Your task to perform on an android device: check google app version Image 0: 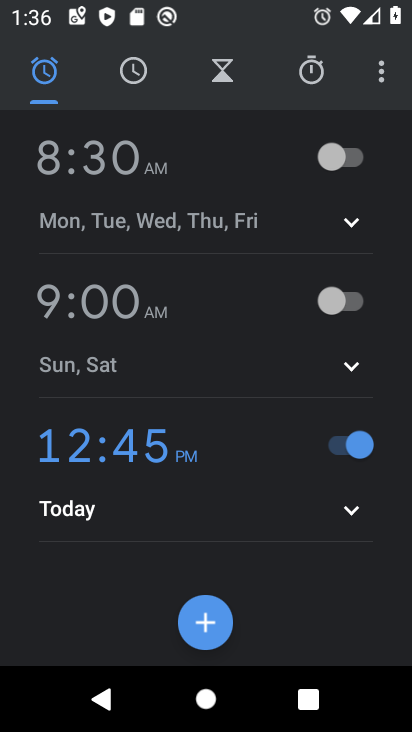
Step 0: press home button
Your task to perform on an android device: check google app version Image 1: 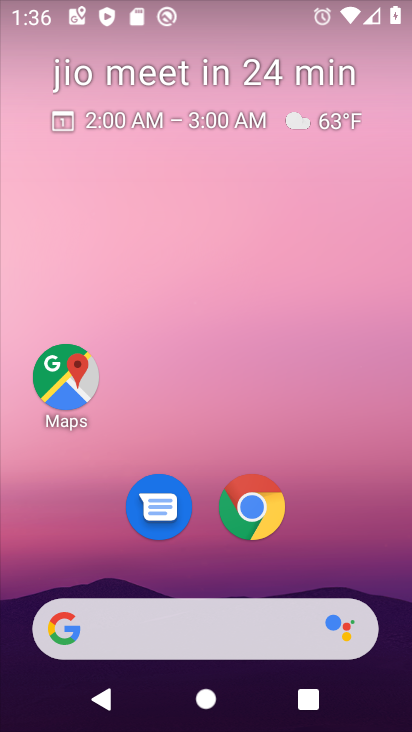
Step 1: click (228, 630)
Your task to perform on an android device: check google app version Image 2: 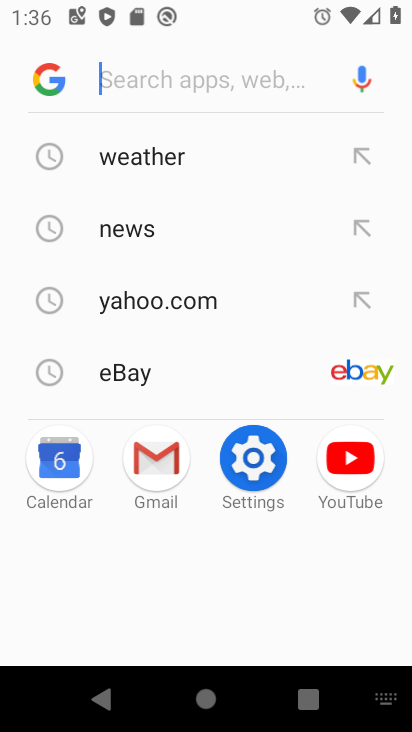
Step 2: click (50, 80)
Your task to perform on an android device: check google app version Image 3: 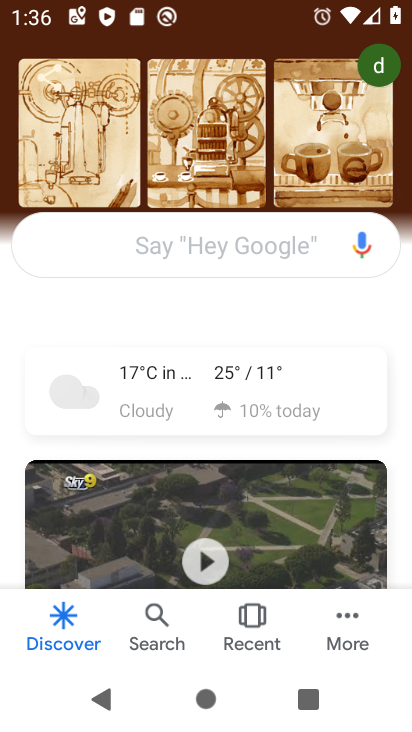
Step 3: click (351, 612)
Your task to perform on an android device: check google app version Image 4: 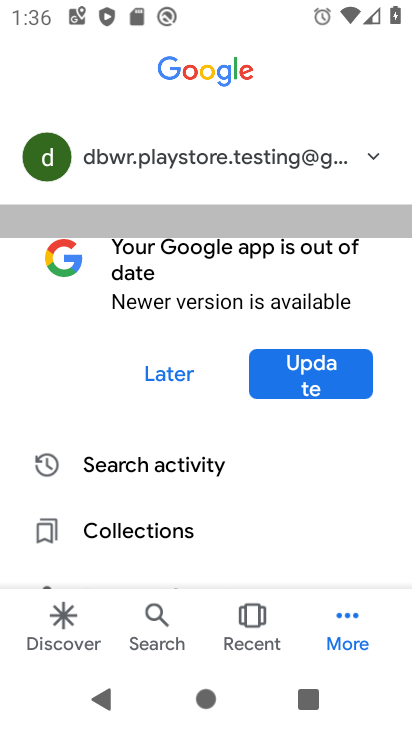
Step 4: drag from (190, 474) to (211, 108)
Your task to perform on an android device: check google app version Image 5: 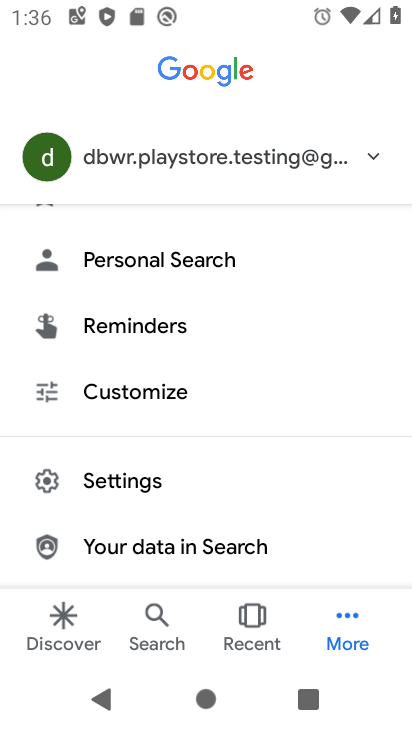
Step 5: click (148, 470)
Your task to perform on an android device: check google app version Image 6: 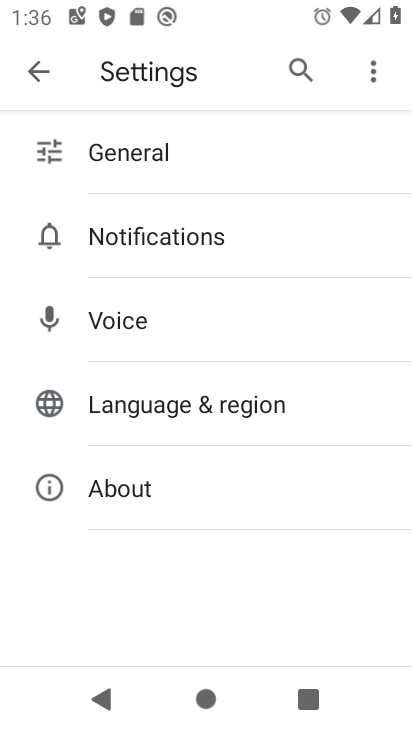
Step 6: click (207, 489)
Your task to perform on an android device: check google app version Image 7: 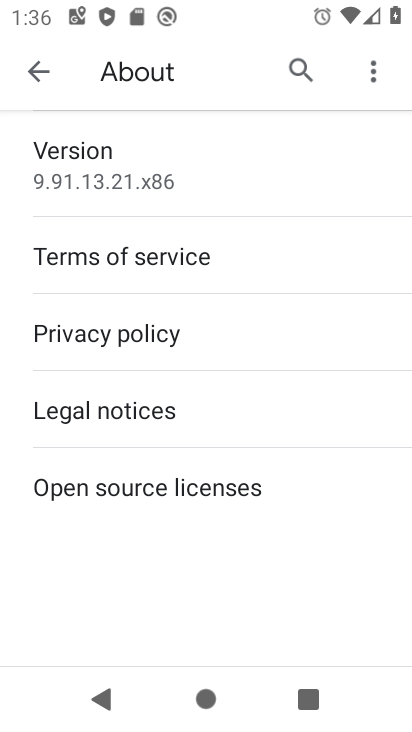
Step 7: task complete